Your task to perform on an android device: change alarm snooze length Image 0: 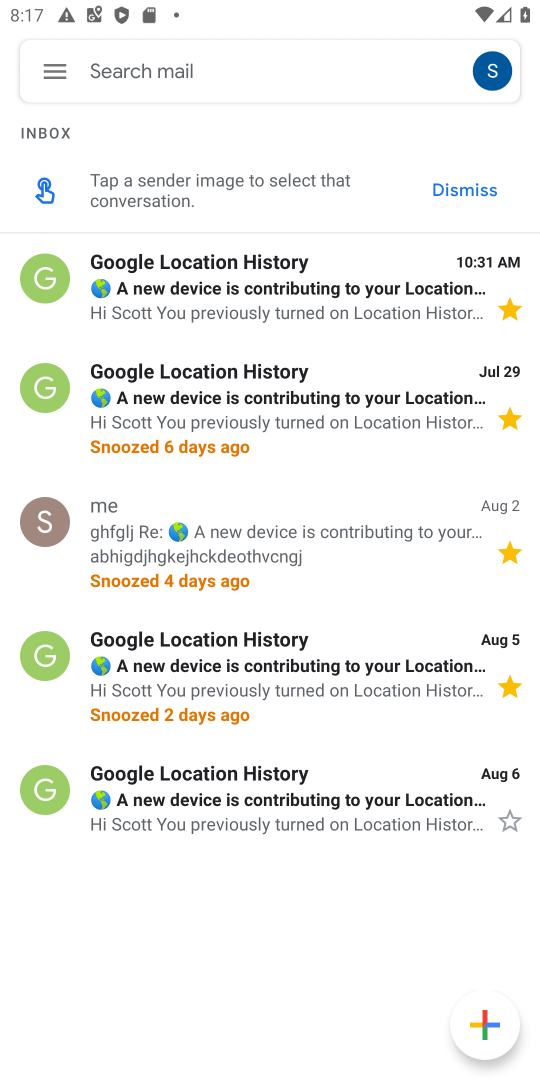
Step 0: press home button
Your task to perform on an android device: change alarm snooze length Image 1: 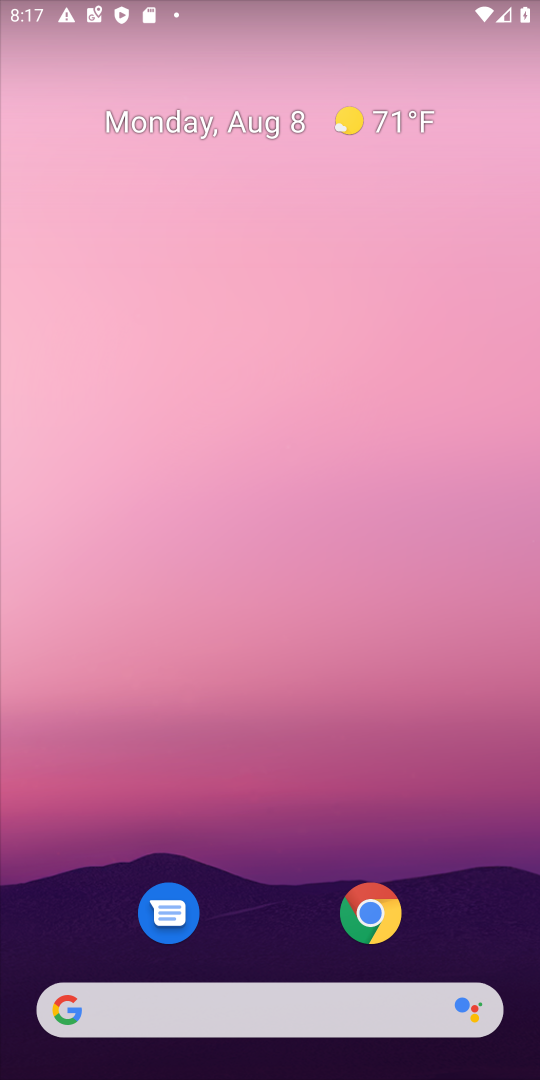
Step 1: drag from (274, 997) to (372, 88)
Your task to perform on an android device: change alarm snooze length Image 2: 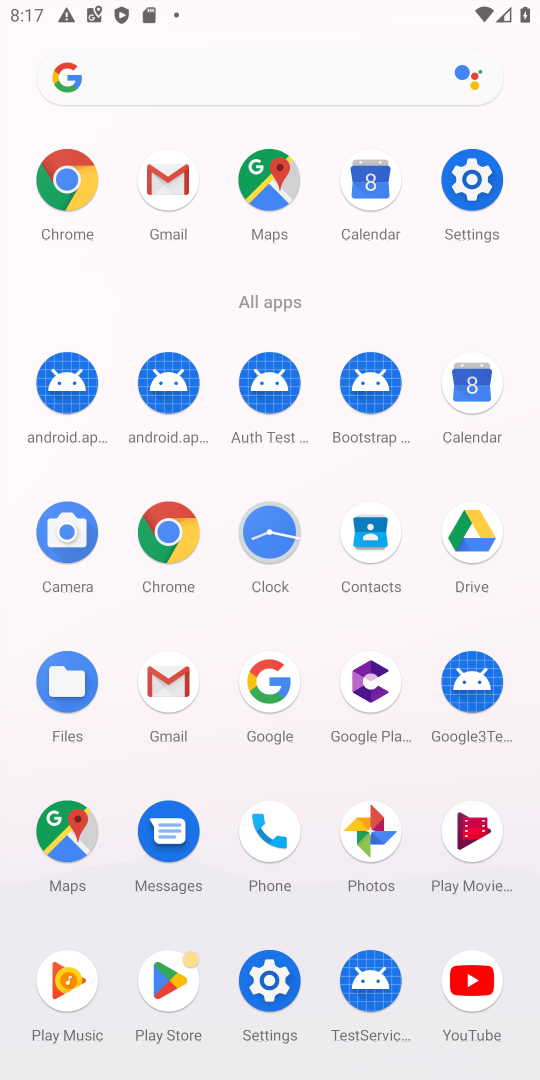
Step 2: click (269, 532)
Your task to perform on an android device: change alarm snooze length Image 3: 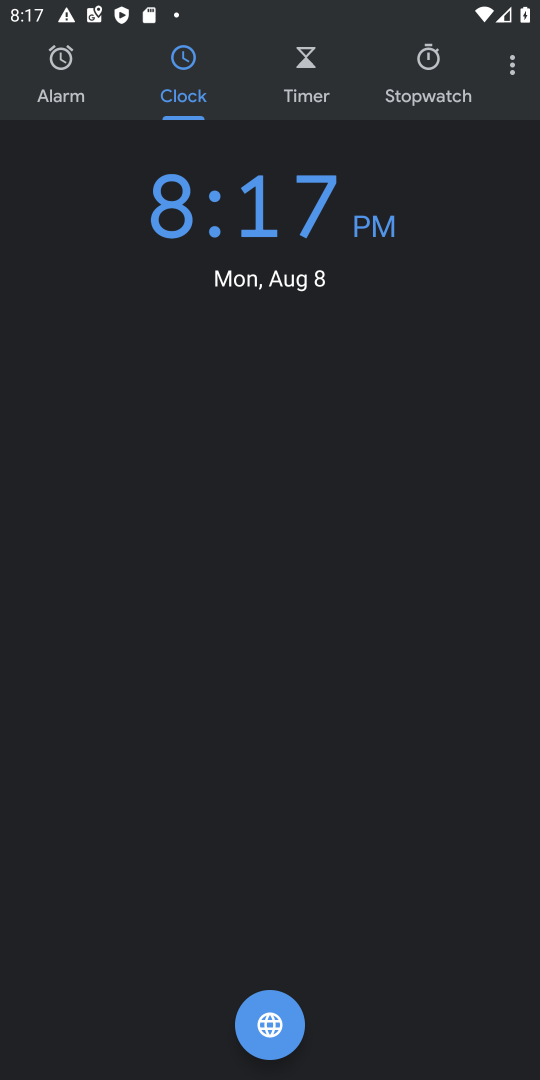
Step 3: click (514, 64)
Your task to perform on an android device: change alarm snooze length Image 4: 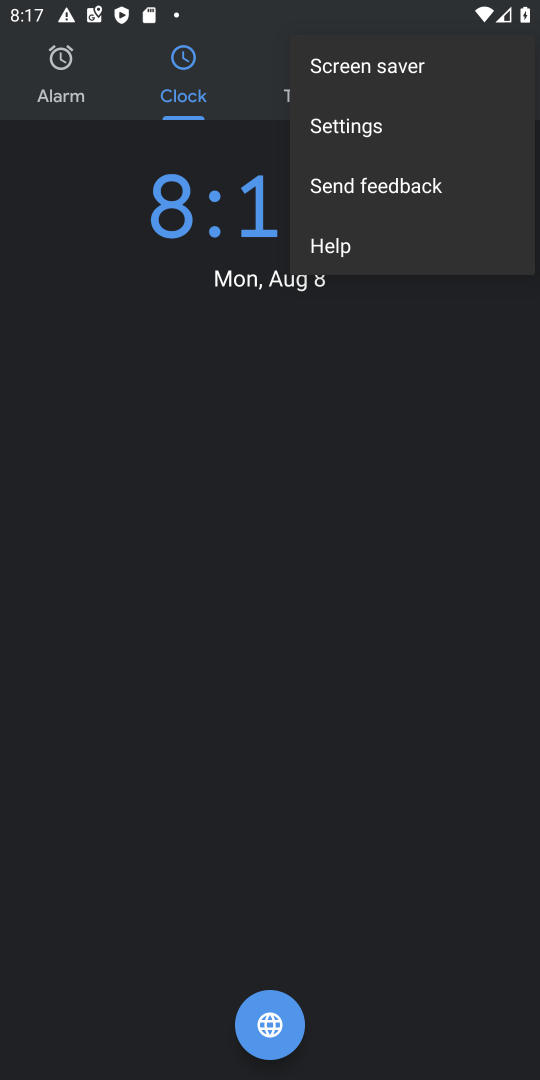
Step 4: click (362, 118)
Your task to perform on an android device: change alarm snooze length Image 5: 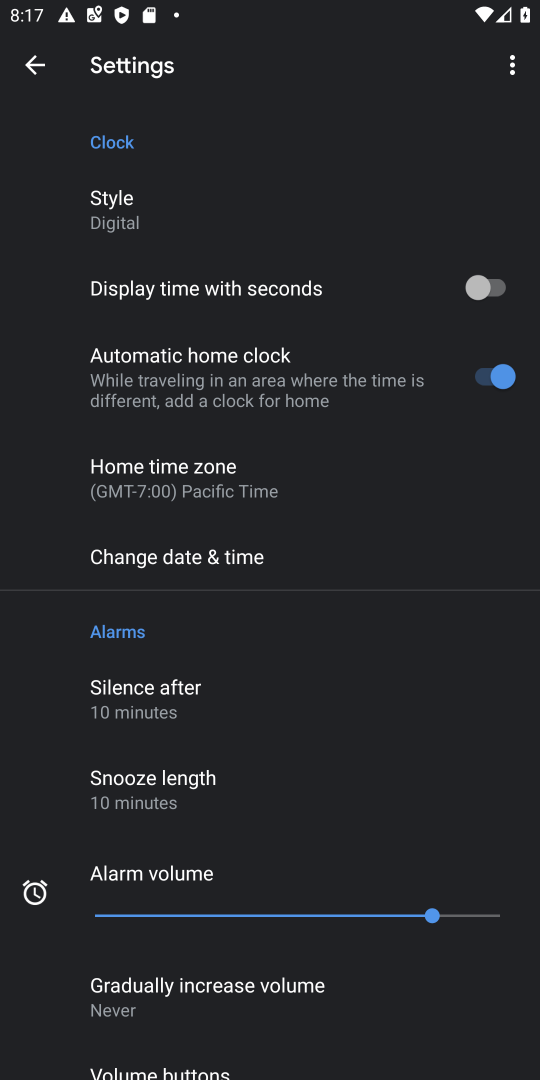
Step 5: click (158, 786)
Your task to perform on an android device: change alarm snooze length Image 6: 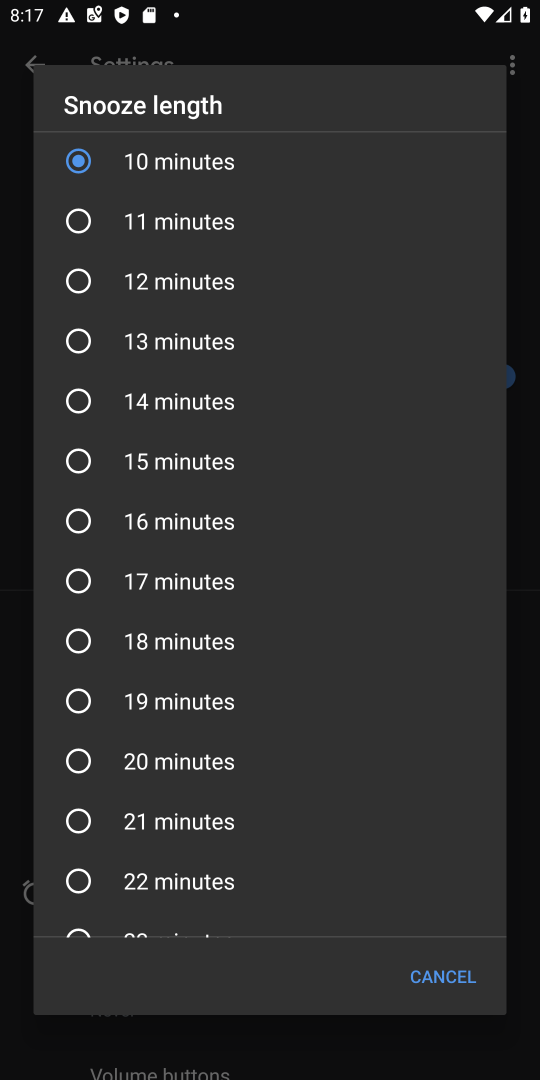
Step 6: drag from (159, 828) to (307, 575)
Your task to perform on an android device: change alarm snooze length Image 7: 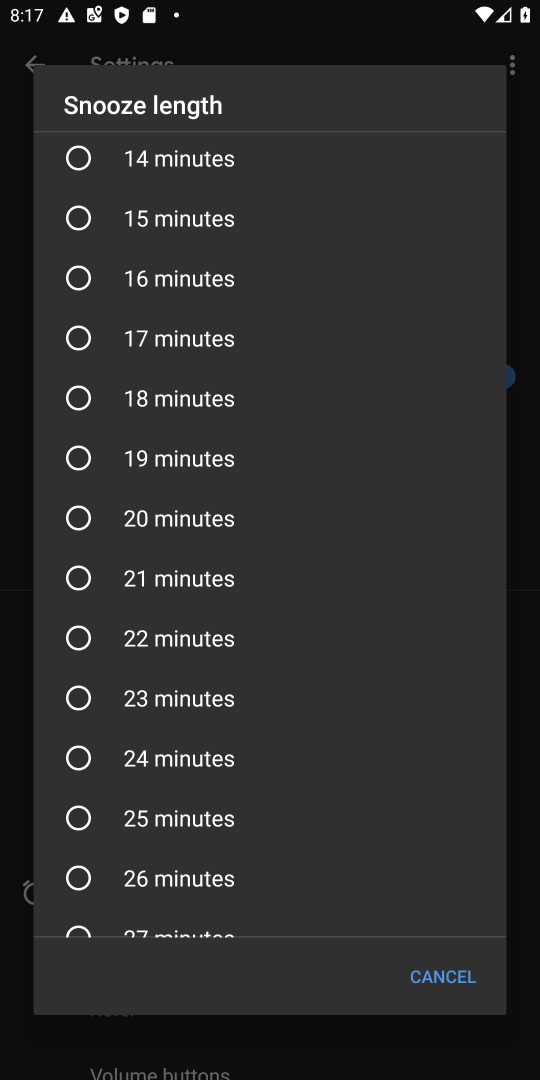
Step 7: click (86, 698)
Your task to perform on an android device: change alarm snooze length Image 8: 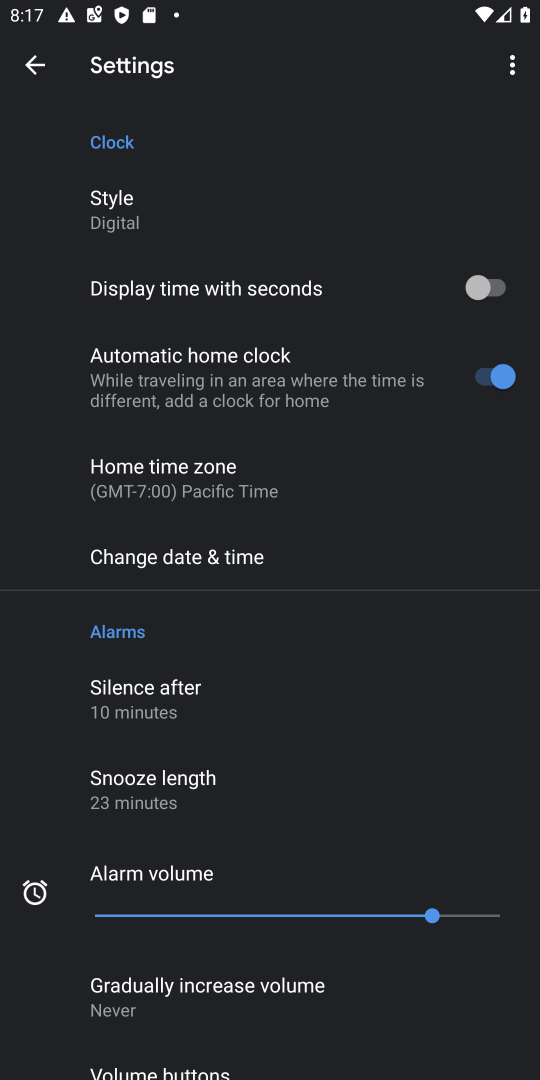
Step 8: task complete